Your task to perform on an android device: open app "Pluto TV - Live TV and Movies" (install if not already installed) Image 0: 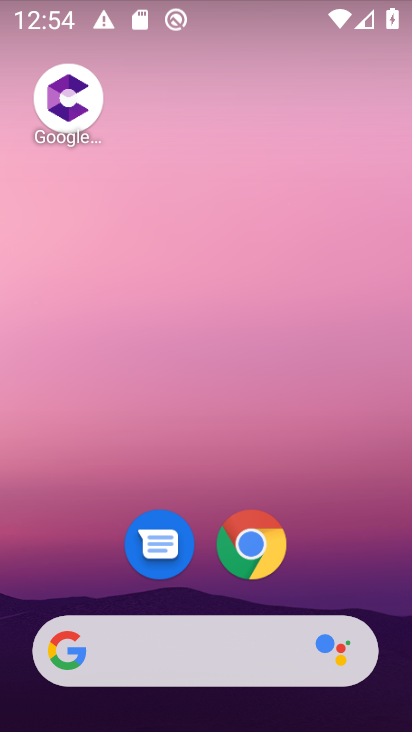
Step 0: drag from (407, 619) to (214, 32)
Your task to perform on an android device: open app "Pluto TV - Live TV and Movies" (install if not already installed) Image 1: 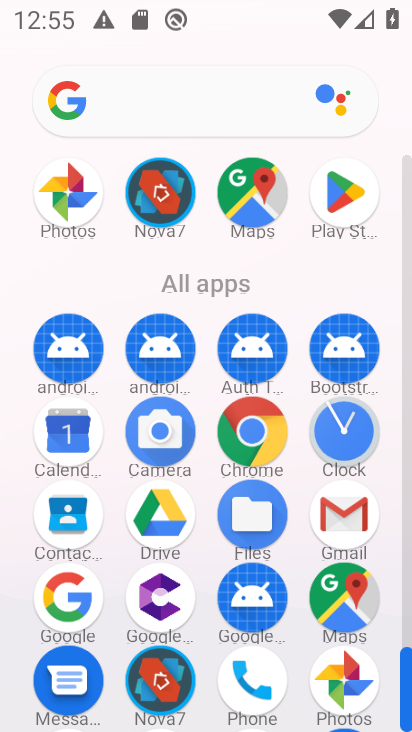
Step 1: click (349, 224)
Your task to perform on an android device: open app "Pluto TV - Live TV and Movies" (install if not already installed) Image 2: 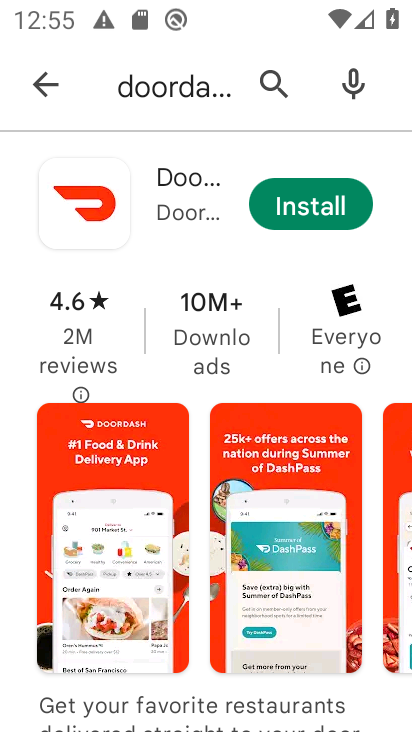
Step 2: press back button
Your task to perform on an android device: open app "Pluto TV - Live TV and Movies" (install if not already installed) Image 3: 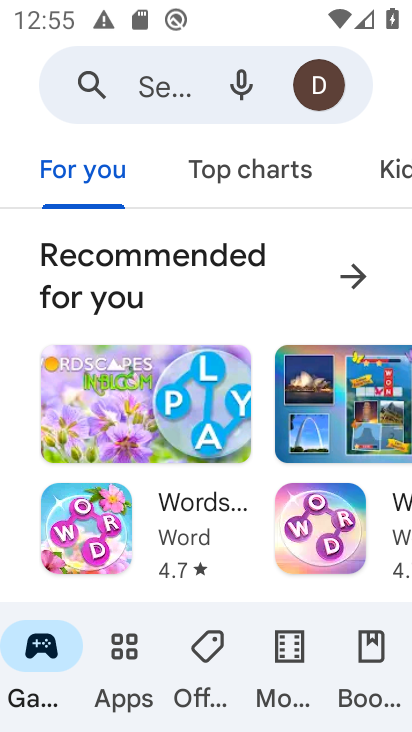
Step 3: click (140, 64)
Your task to perform on an android device: open app "Pluto TV - Live TV and Movies" (install if not already installed) Image 4: 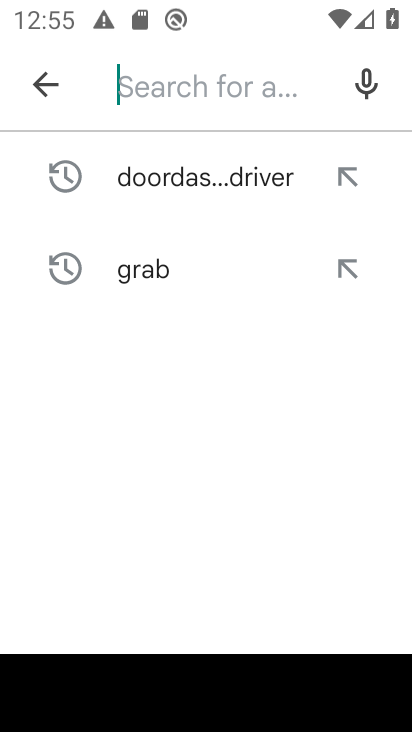
Step 4: type "Pluto TV - Live TV and Movies"
Your task to perform on an android device: open app "Pluto TV - Live TV and Movies" (install if not already installed) Image 5: 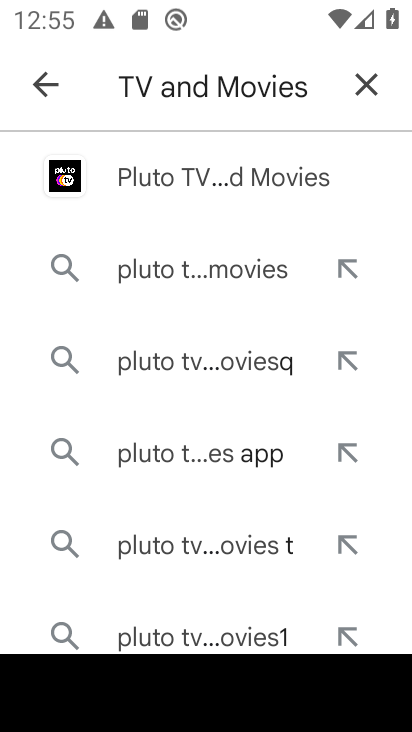
Step 5: click (163, 176)
Your task to perform on an android device: open app "Pluto TV - Live TV and Movies" (install if not already installed) Image 6: 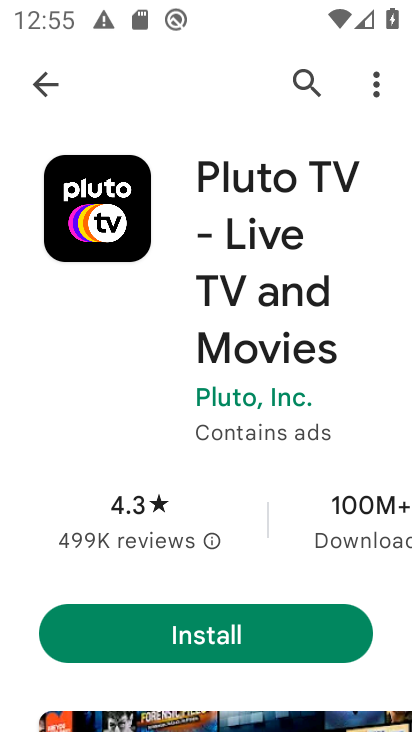
Step 6: task complete